Your task to perform on an android device: Open Google Chrome and click the shortcut for Amazon.com Image 0: 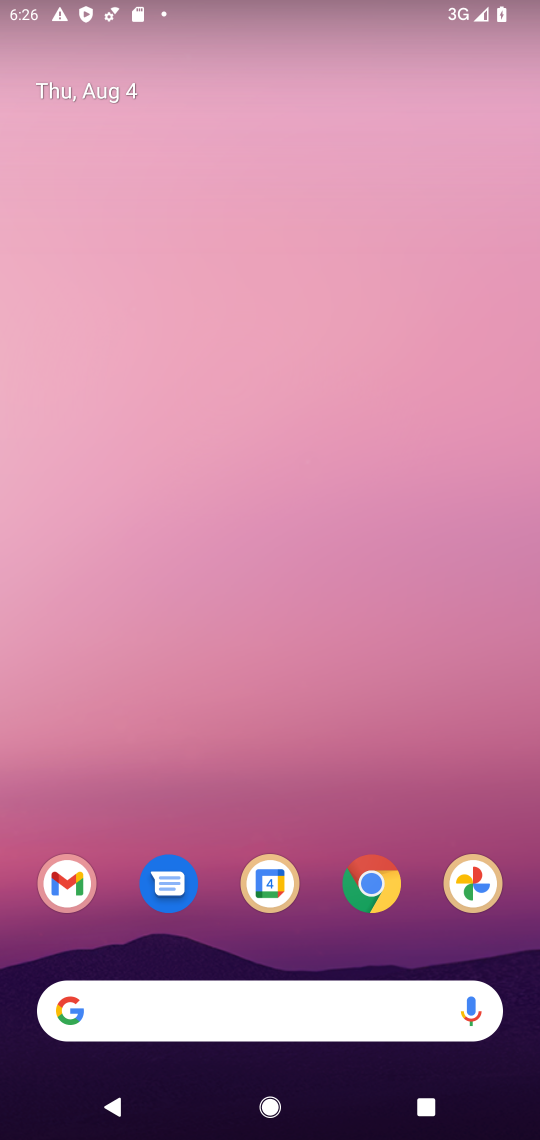
Step 0: click (386, 800)
Your task to perform on an android device: Open Google Chrome and click the shortcut for Amazon.com Image 1: 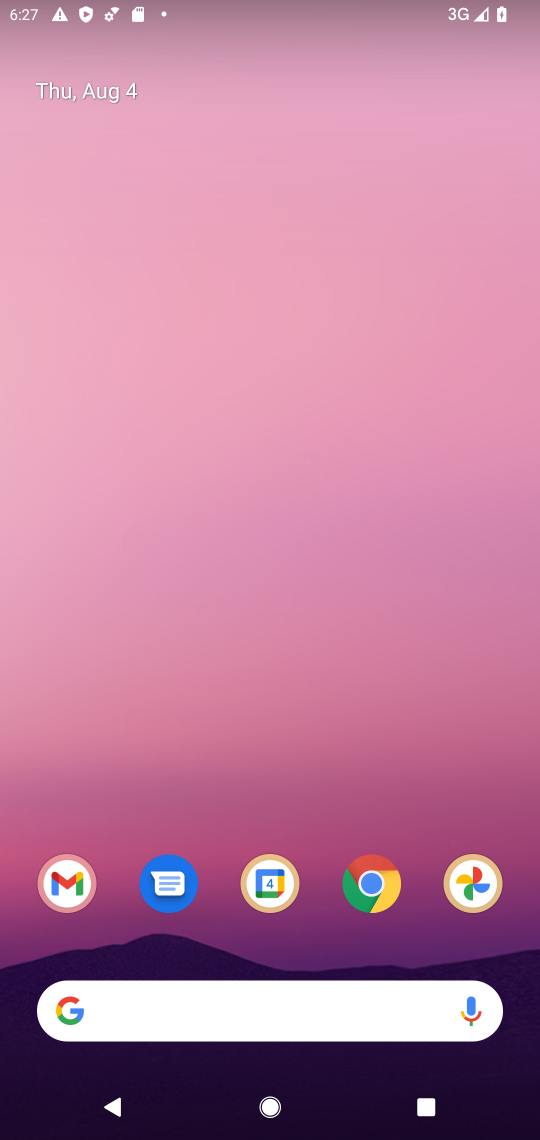
Step 1: click (368, 901)
Your task to perform on an android device: Open Google Chrome and click the shortcut for Amazon.com Image 2: 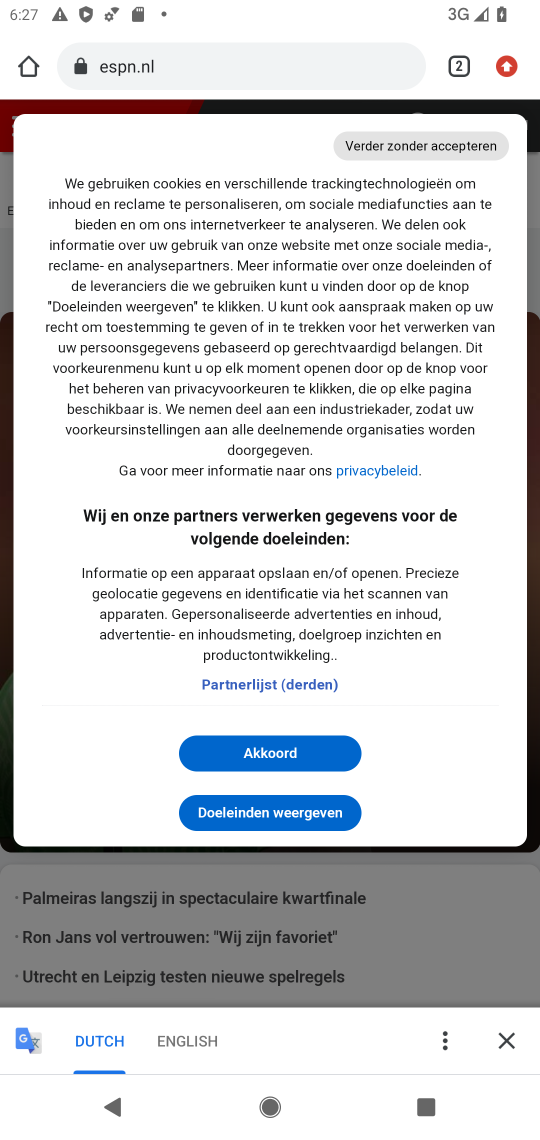
Step 2: click (469, 68)
Your task to perform on an android device: Open Google Chrome and click the shortcut for Amazon.com Image 3: 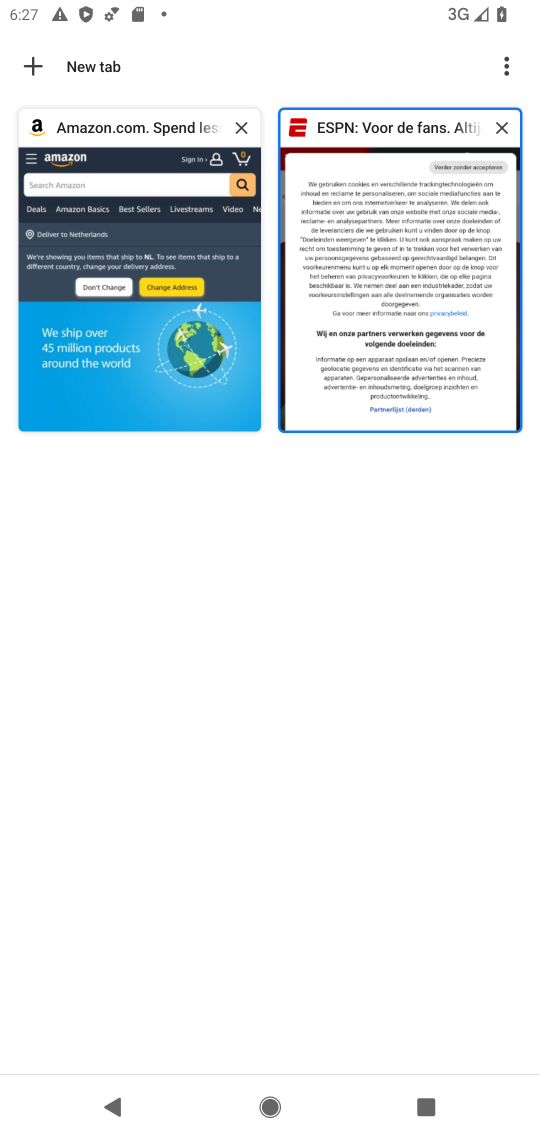
Step 3: click (71, 50)
Your task to perform on an android device: Open Google Chrome and click the shortcut for Amazon.com Image 4: 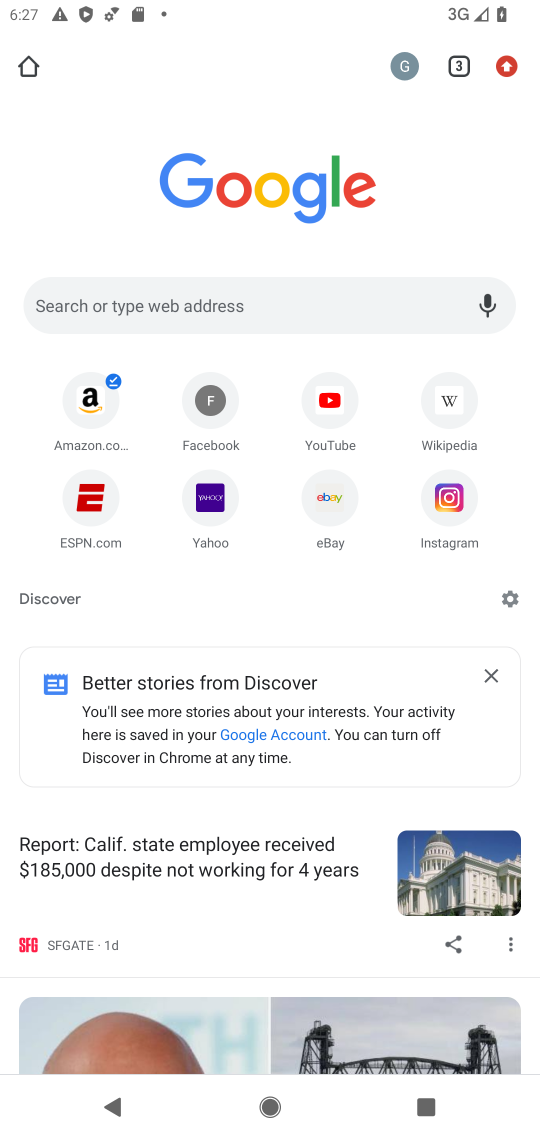
Step 4: click (84, 415)
Your task to perform on an android device: Open Google Chrome and click the shortcut for Amazon.com Image 5: 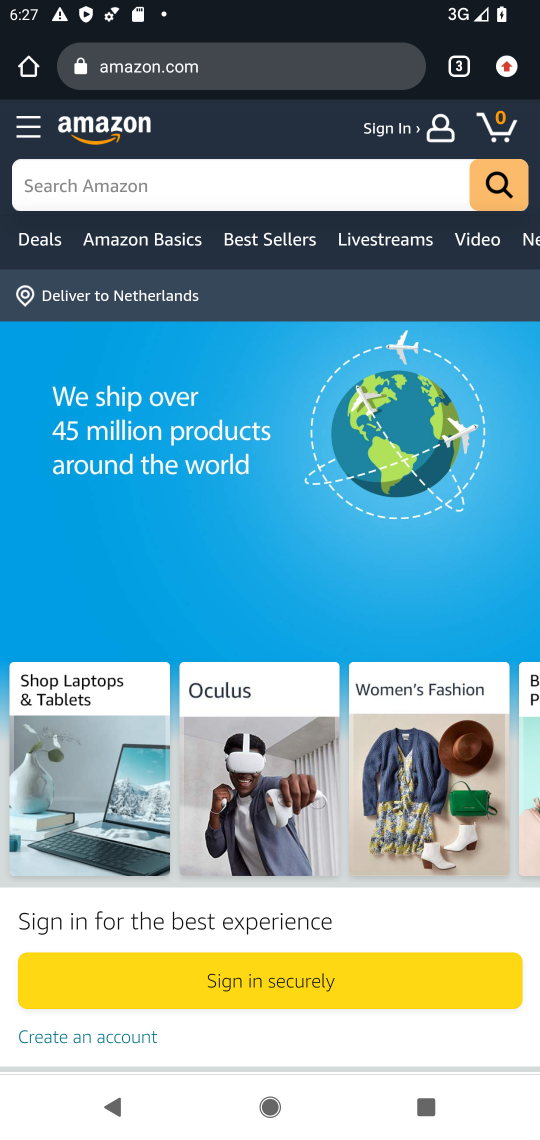
Step 5: task complete